Your task to perform on an android device: add a contact in the contacts app Image 0: 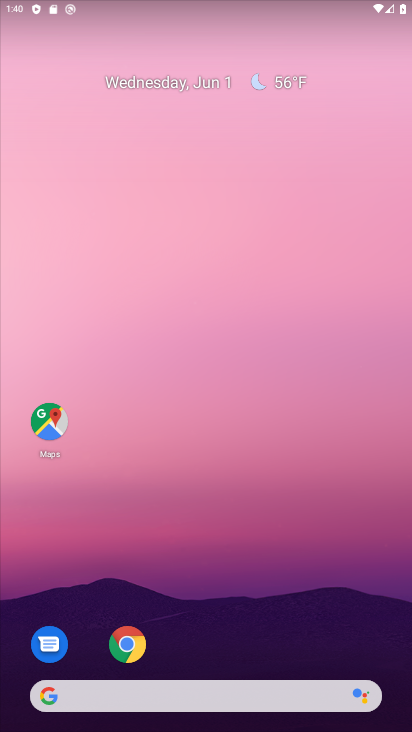
Step 0: drag from (302, 497) to (207, 13)
Your task to perform on an android device: add a contact in the contacts app Image 1: 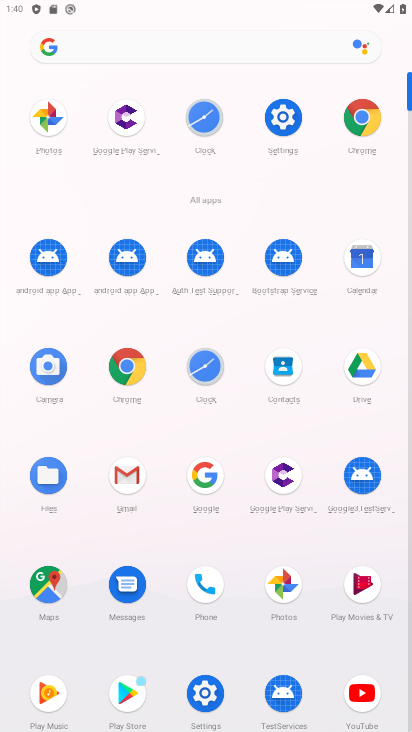
Step 1: drag from (19, 525) to (17, 183)
Your task to perform on an android device: add a contact in the contacts app Image 2: 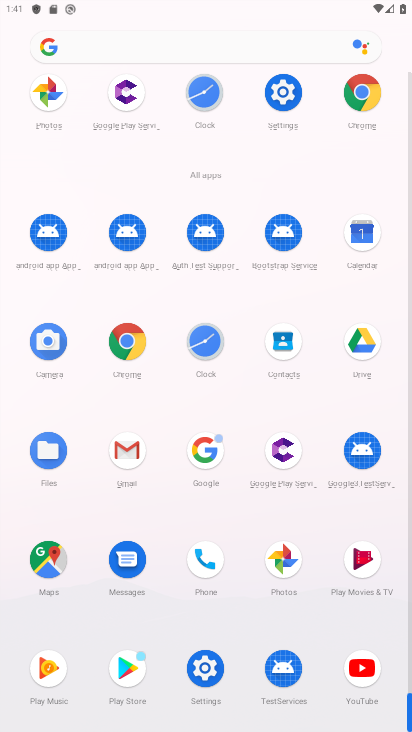
Step 2: click (278, 337)
Your task to perform on an android device: add a contact in the contacts app Image 3: 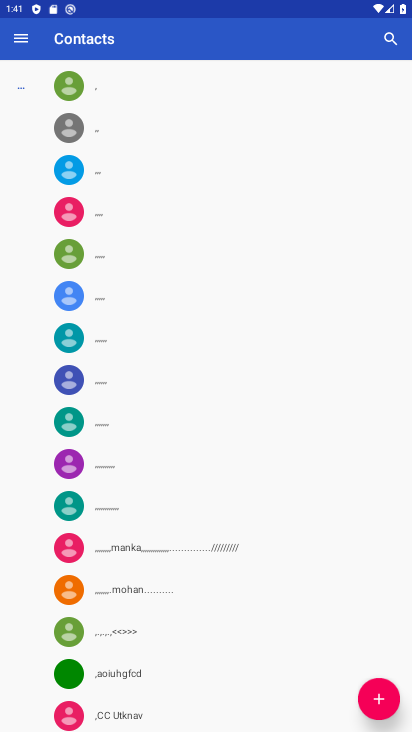
Step 3: drag from (195, 189) to (203, 509)
Your task to perform on an android device: add a contact in the contacts app Image 4: 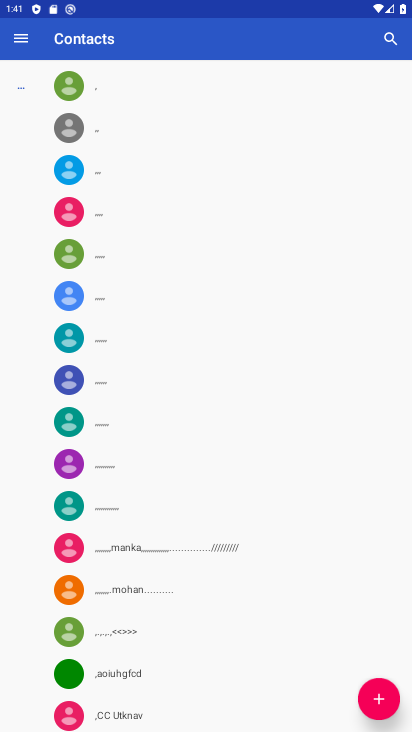
Step 4: click (383, 696)
Your task to perform on an android device: add a contact in the contacts app Image 5: 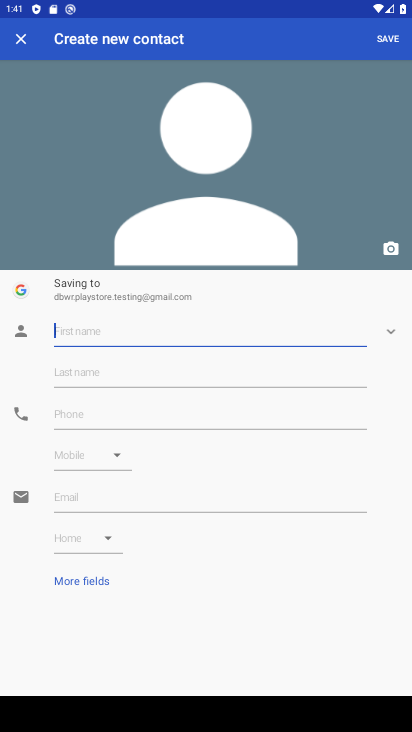
Step 5: click (107, 328)
Your task to perform on an android device: add a contact in the contacts app Image 6: 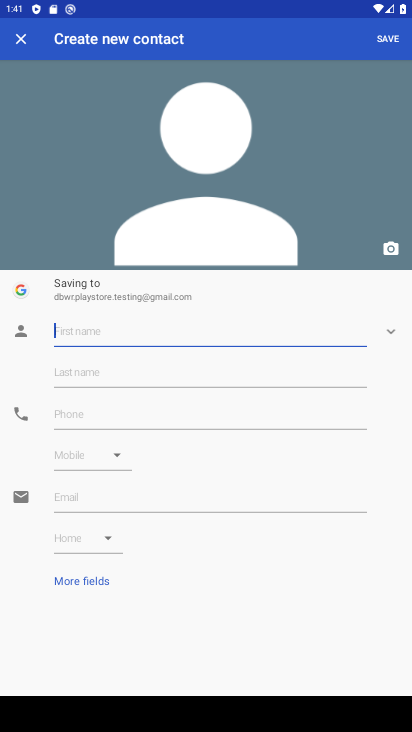
Step 6: type "Sghjg"
Your task to perform on an android device: add a contact in the contacts app Image 7: 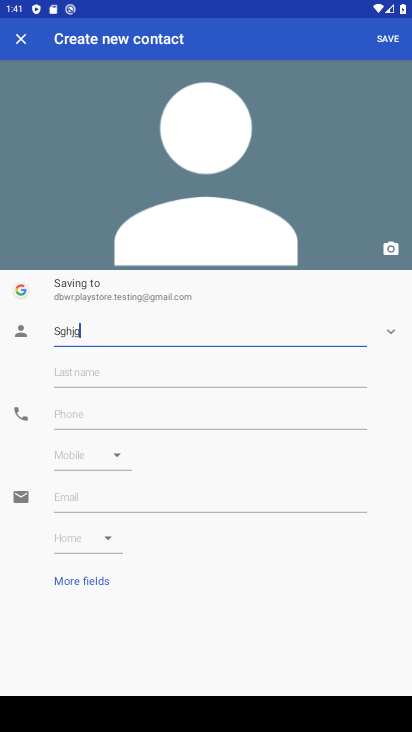
Step 7: type ""
Your task to perform on an android device: add a contact in the contacts app Image 8: 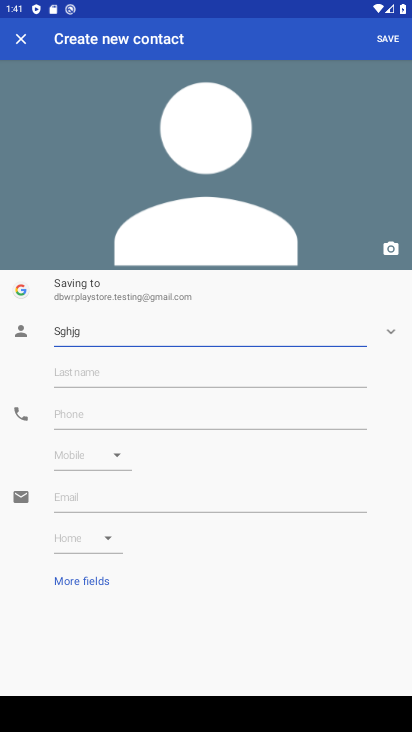
Step 8: click (127, 411)
Your task to perform on an android device: add a contact in the contacts app Image 9: 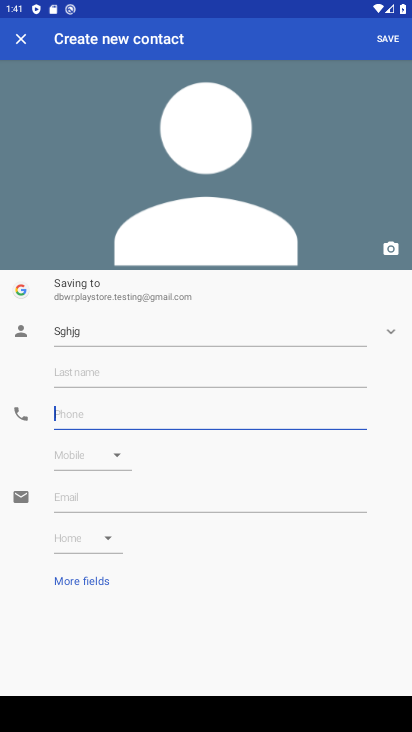
Step 9: type "345678"
Your task to perform on an android device: add a contact in the contacts app Image 10: 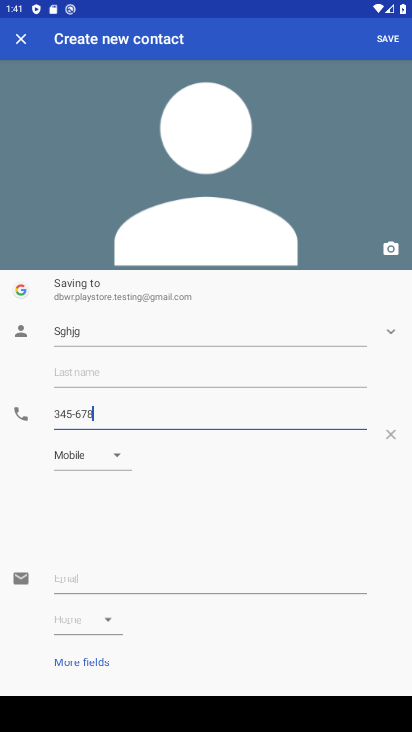
Step 10: type ""
Your task to perform on an android device: add a contact in the contacts app Image 11: 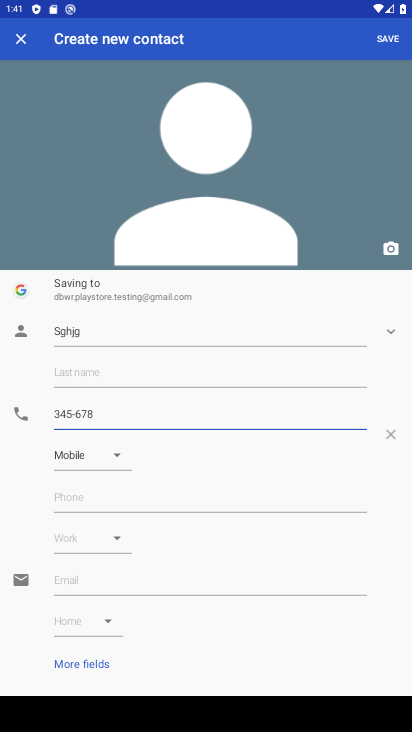
Step 11: click (392, 40)
Your task to perform on an android device: add a contact in the contacts app Image 12: 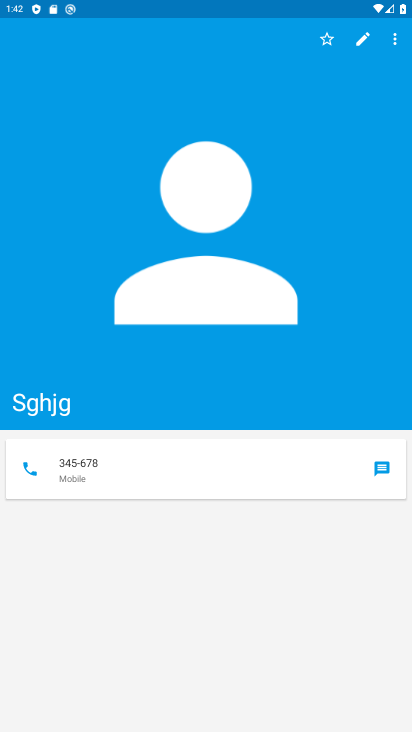
Step 12: task complete